Your task to perform on an android device: change the clock display to digital Image 0: 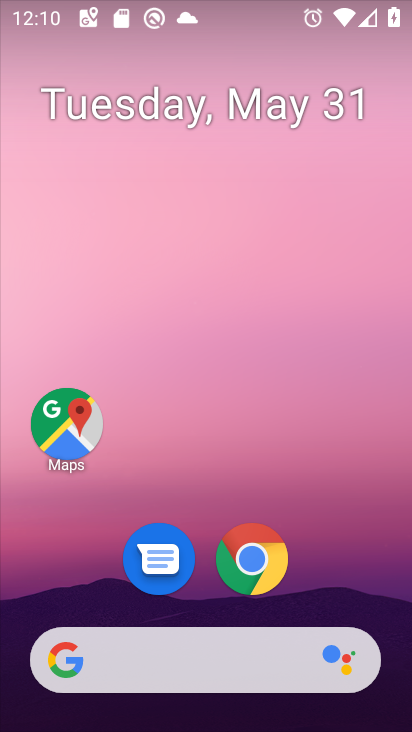
Step 0: drag from (376, 577) to (335, 58)
Your task to perform on an android device: change the clock display to digital Image 1: 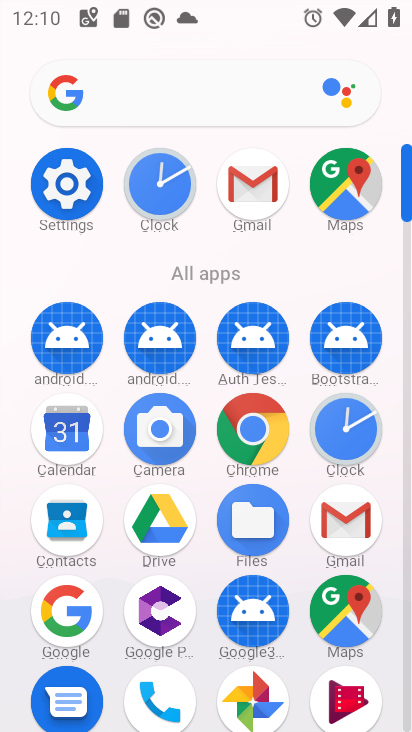
Step 1: click (345, 429)
Your task to perform on an android device: change the clock display to digital Image 2: 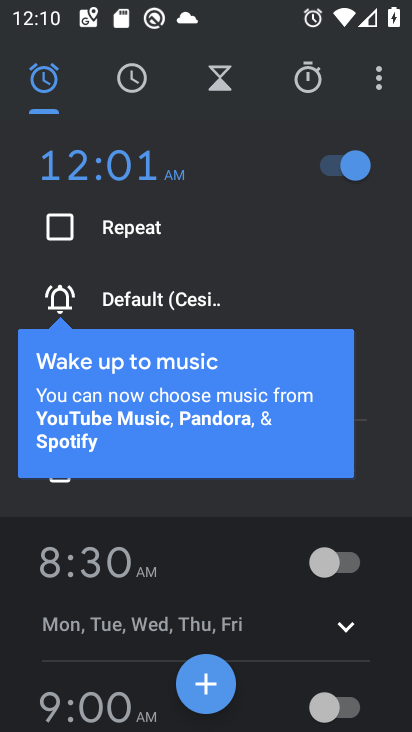
Step 2: click (377, 100)
Your task to perform on an android device: change the clock display to digital Image 3: 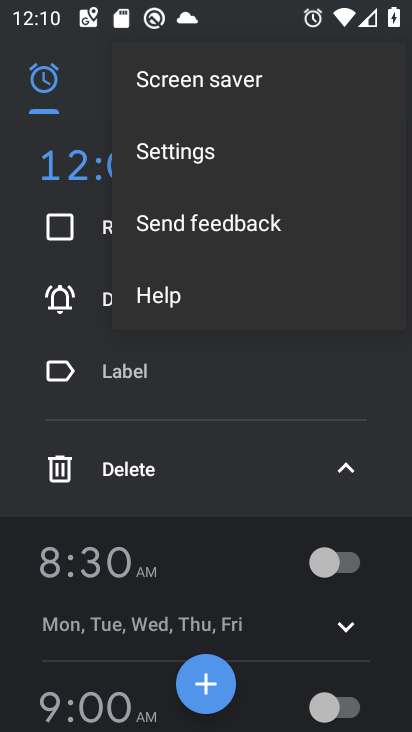
Step 3: click (321, 135)
Your task to perform on an android device: change the clock display to digital Image 4: 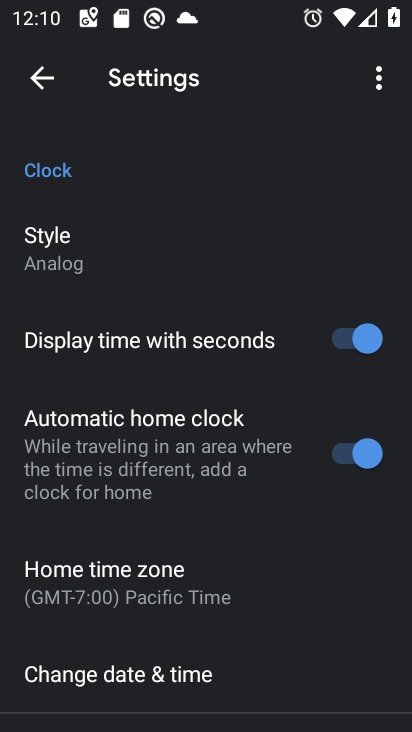
Step 4: click (208, 253)
Your task to perform on an android device: change the clock display to digital Image 5: 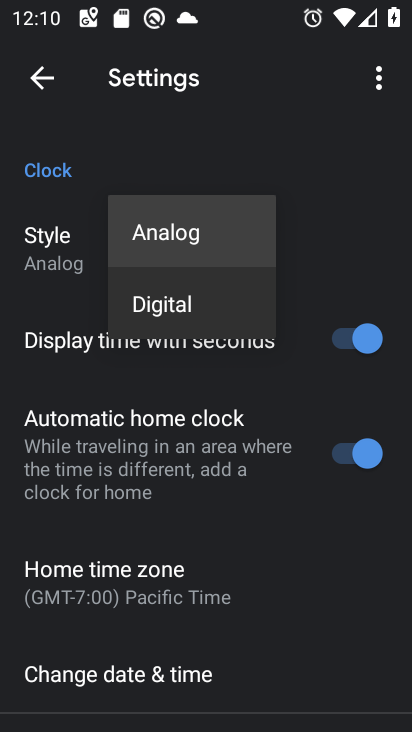
Step 5: click (193, 305)
Your task to perform on an android device: change the clock display to digital Image 6: 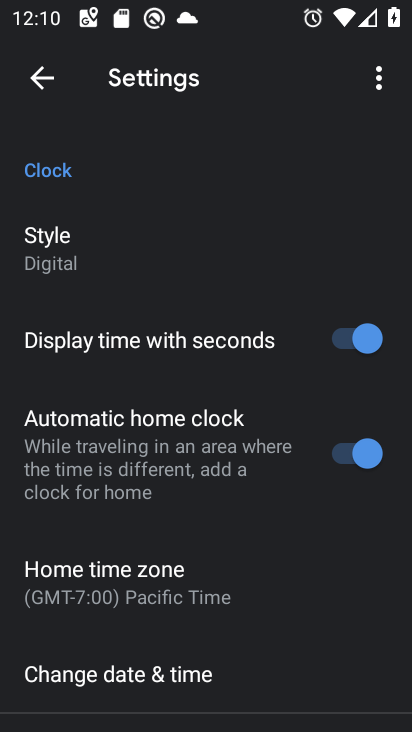
Step 6: task complete